Your task to perform on an android device: toggle javascript in the chrome app Image 0: 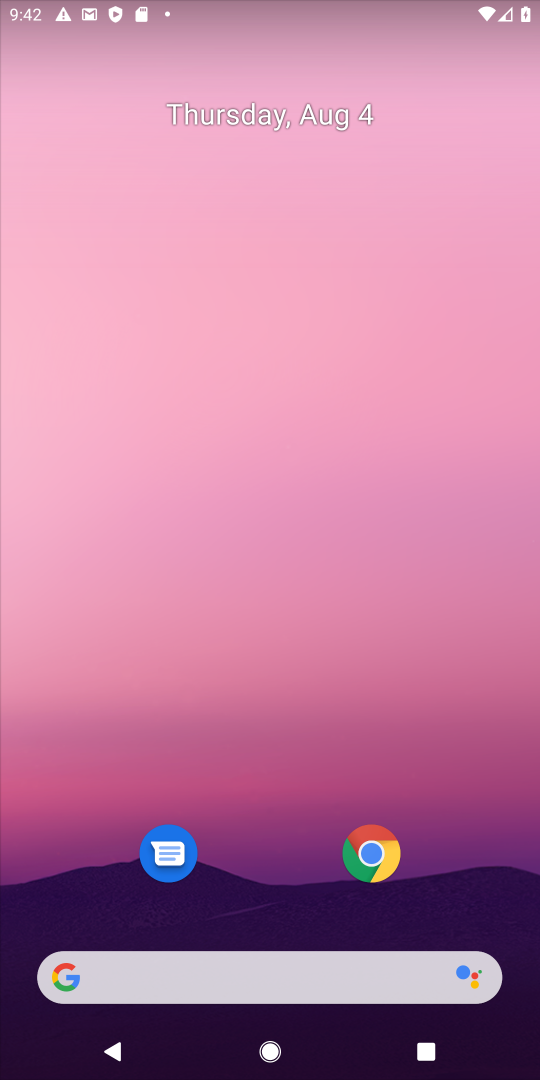
Step 0: drag from (269, 850) to (277, 107)
Your task to perform on an android device: toggle javascript in the chrome app Image 1: 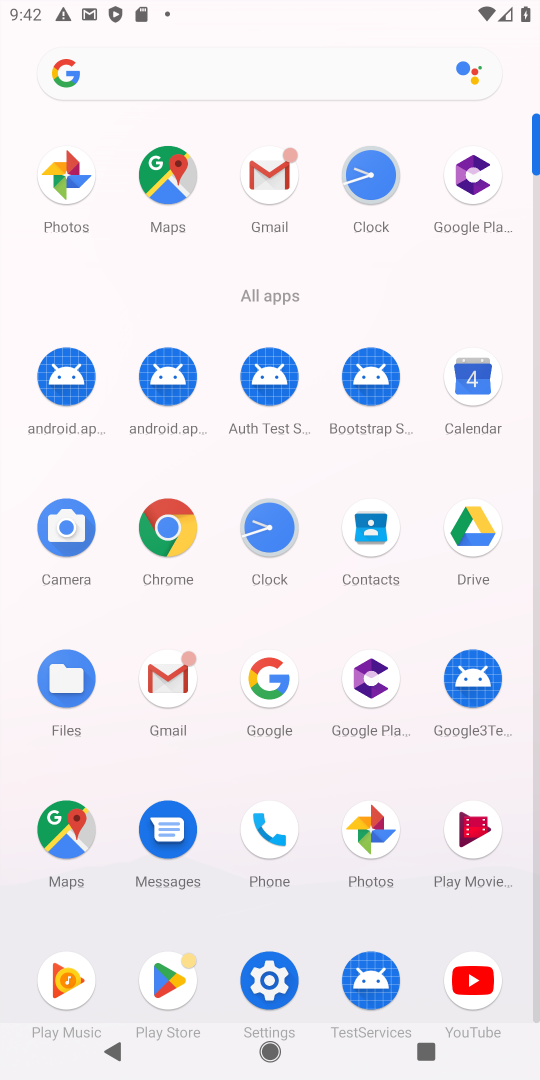
Step 1: click (172, 546)
Your task to perform on an android device: toggle javascript in the chrome app Image 2: 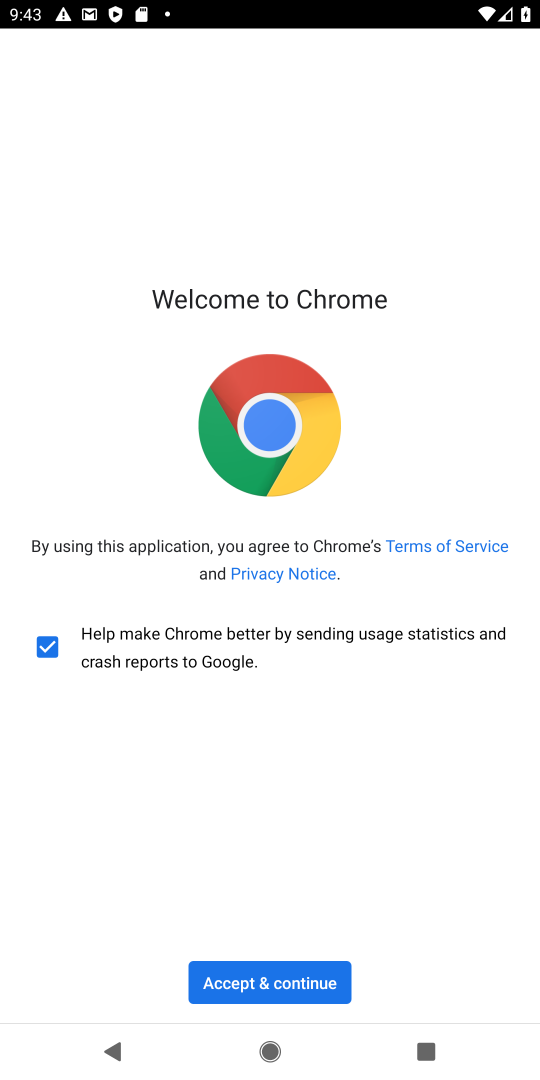
Step 2: click (300, 976)
Your task to perform on an android device: toggle javascript in the chrome app Image 3: 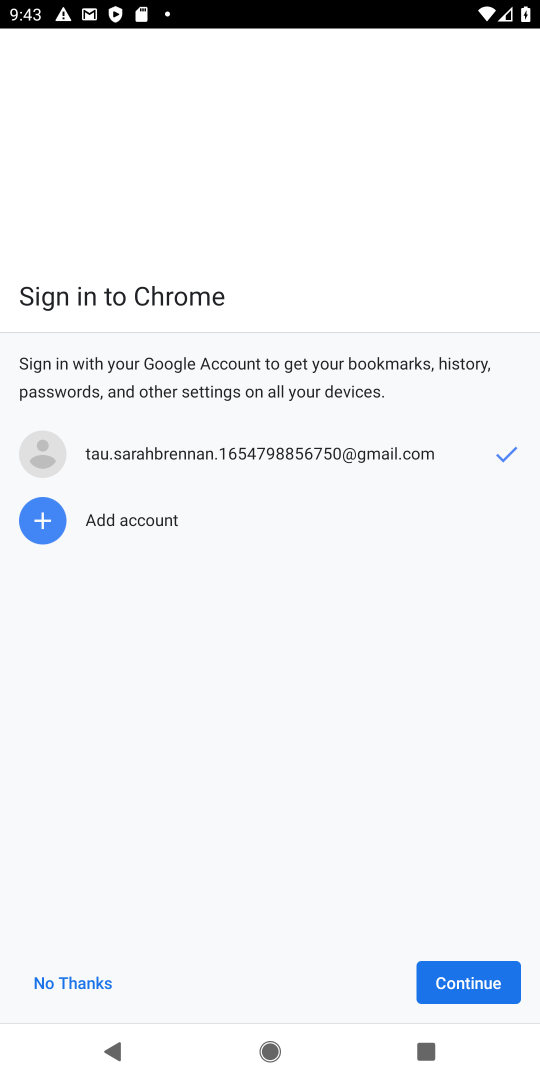
Step 3: click (463, 985)
Your task to perform on an android device: toggle javascript in the chrome app Image 4: 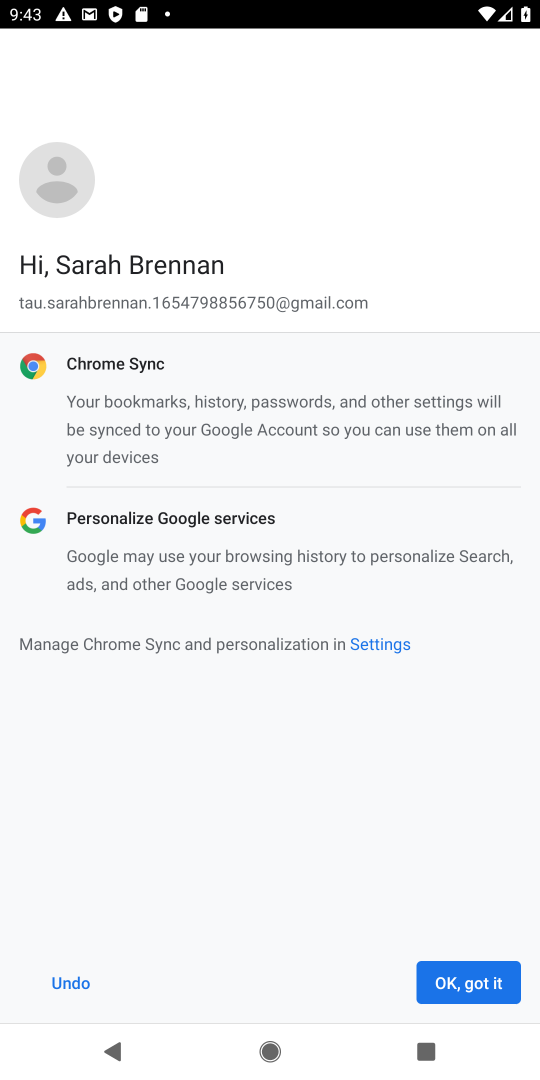
Step 4: click (455, 973)
Your task to perform on an android device: toggle javascript in the chrome app Image 5: 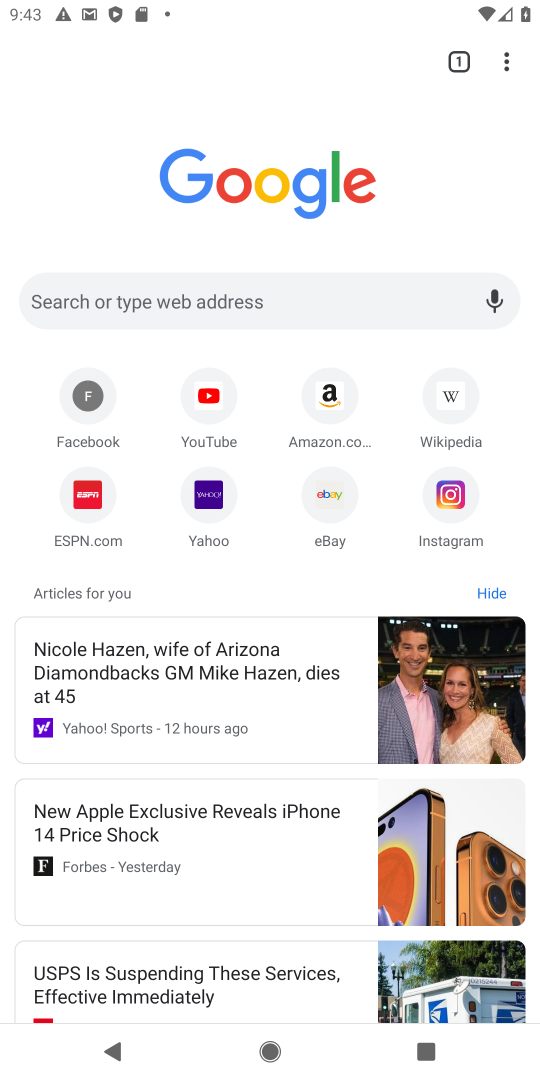
Step 5: click (503, 62)
Your task to perform on an android device: toggle javascript in the chrome app Image 6: 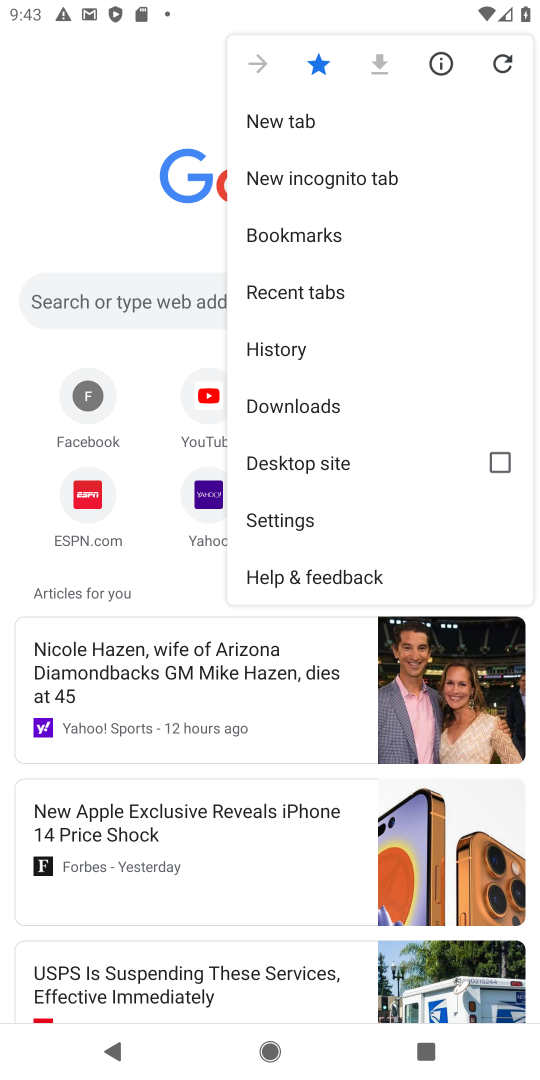
Step 6: click (288, 519)
Your task to perform on an android device: toggle javascript in the chrome app Image 7: 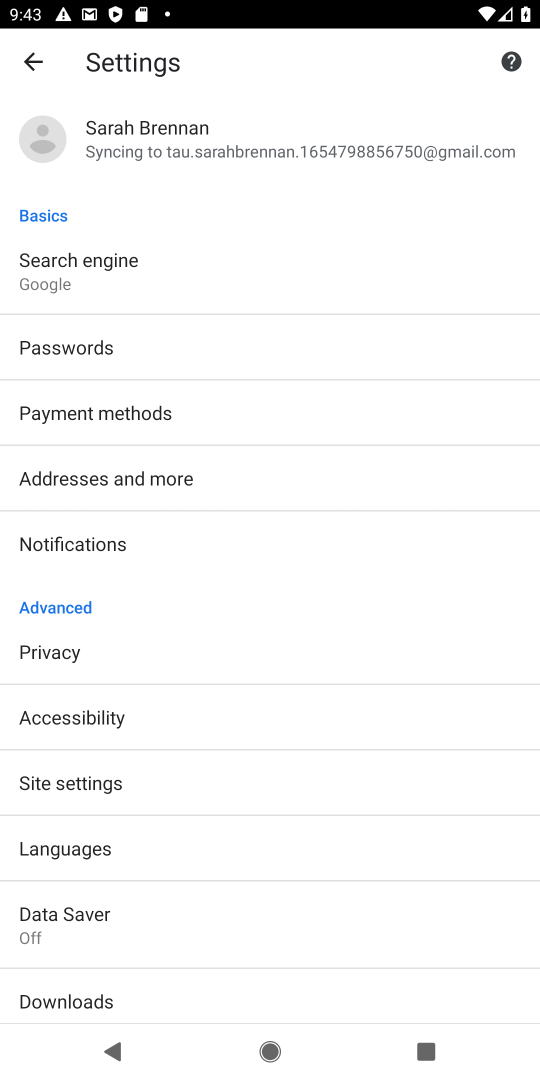
Step 7: click (95, 788)
Your task to perform on an android device: toggle javascript in the chrome app Image 8: 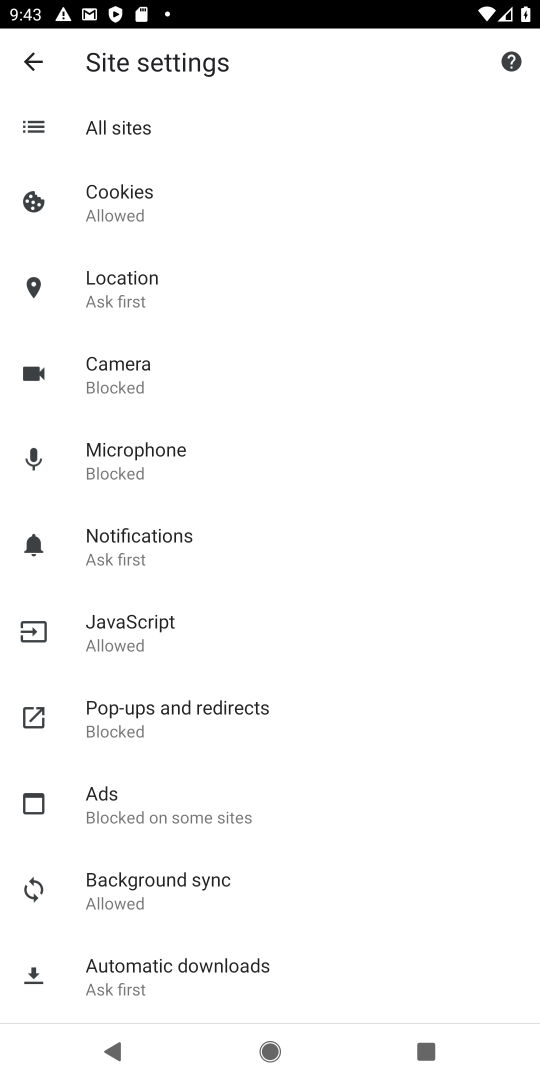
Step 8: click (115, 630)
Your task to perform on an android device: toggle javascript in the chrome app Image 9: 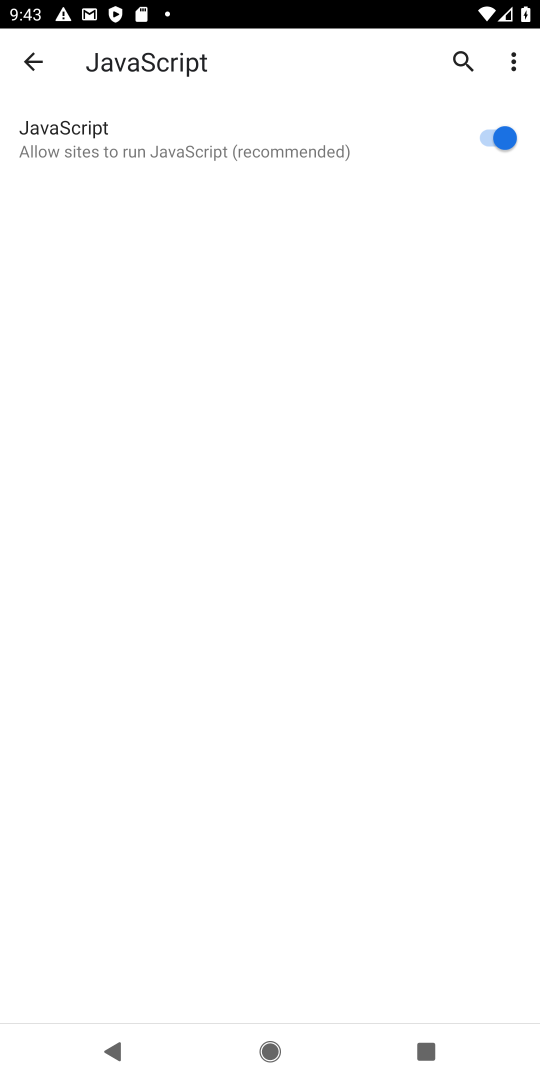
Step 9: click (452, 134)
Your task to perform on an android device: toggle javascript in the chrome app Image 10: 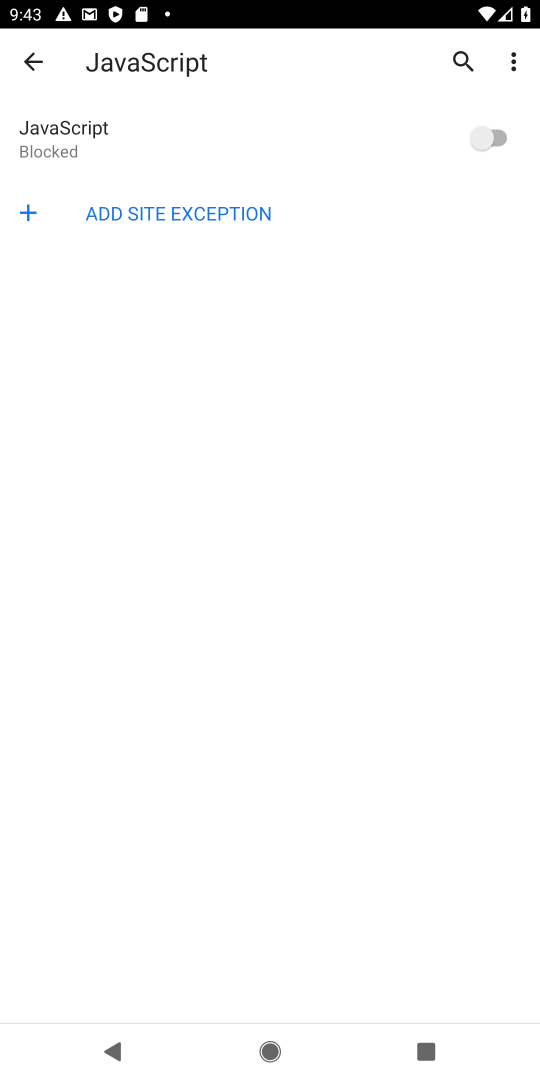
Step 10: task complete